Your task to perform on an android device: Go to Amazon Image 0: 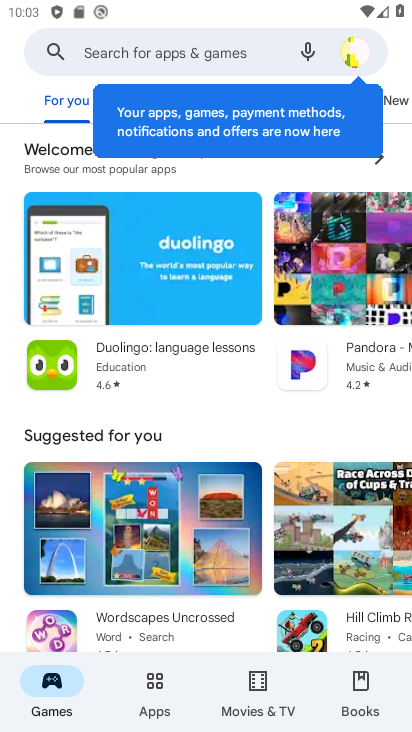
Step 0: press back button
Your task to perform on an android device: Go to Amazon Image 1: 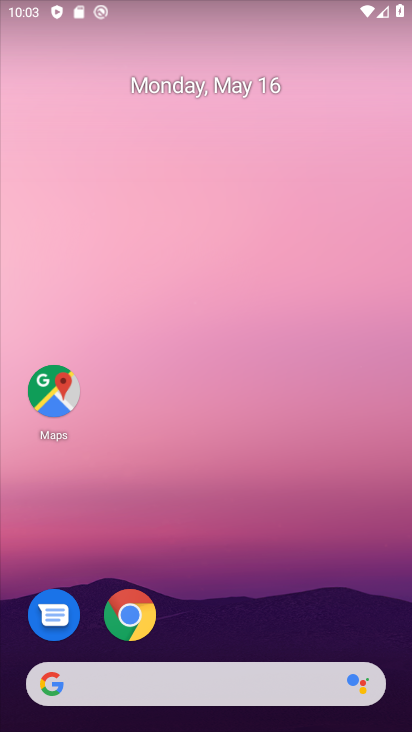
Step 1: click (113, 604)
Your task to perform on an android device: Go to Amazon Image 2: 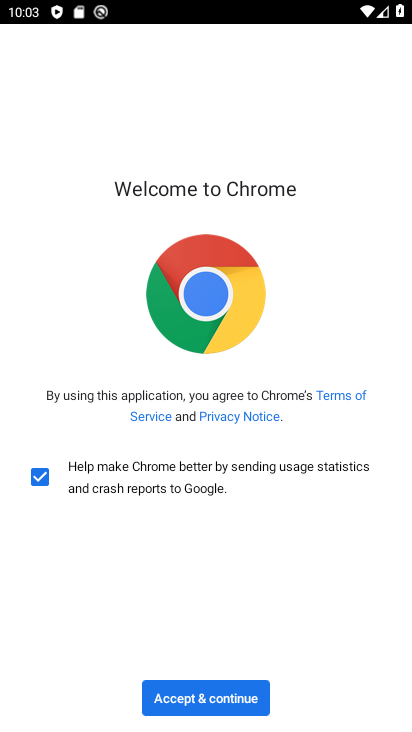
Step 2: click (183, 703)
Your task to perform on an android device: Go to Amazon Image 3: 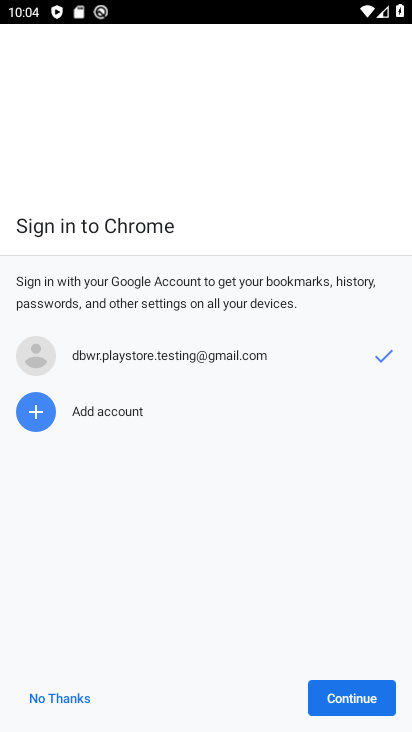
Step 3: click (333, 708)
Your task to perform on an android device: Go to Amazon Image 4: 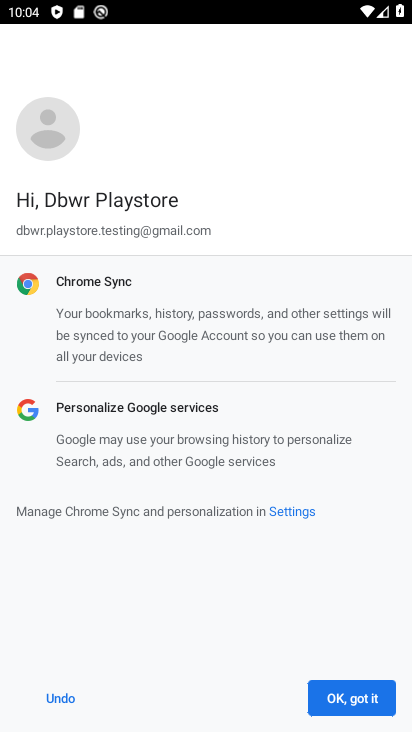
Step 4: click (334, 701)
Your task to perform on an android device: Go to Amazon Image 5: 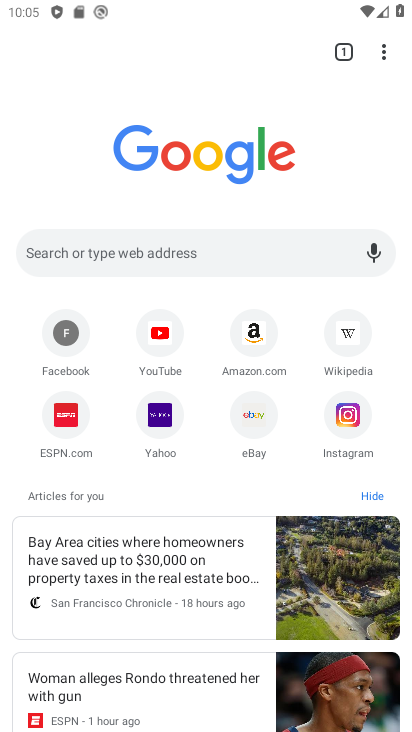
Step 5: click (260, 332)
Your task to perform on an android device: Go to Amazon Image 6: 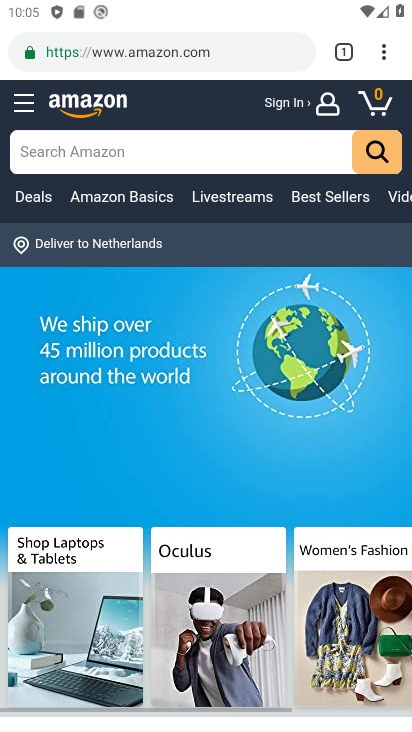
Step 6: task complete